Your task to perform on an android device: Go to internet settings Image 0: 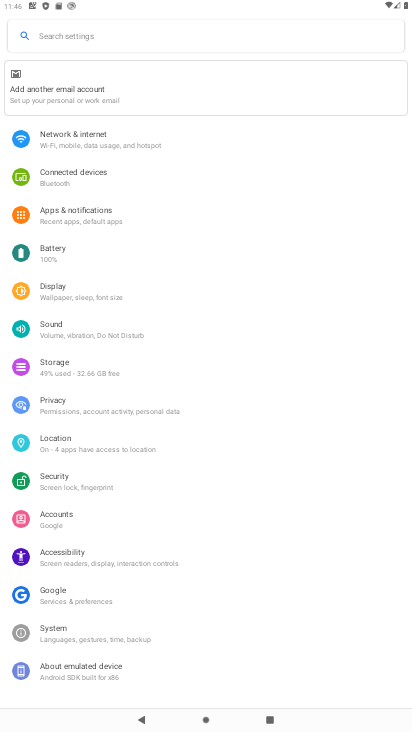
Step 0: press home button
Your task to perform on an android device: Go to internet settings Image 1: 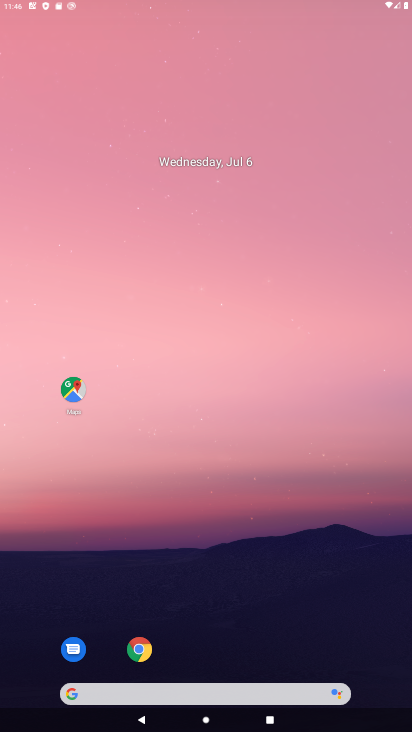
Step 1: drag from (373, 640) to (197, 5)
Your task to perform on an android device: Go to internet settings Image 2: 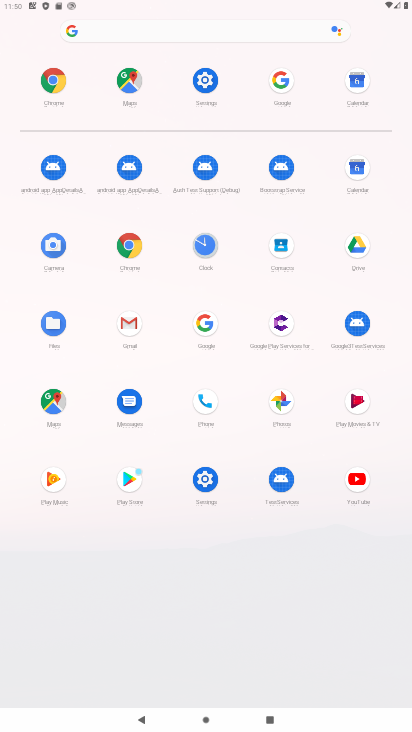
Step 2: click (211, 79)
Your task to perform on an android device: Go to internet settings Image 3: 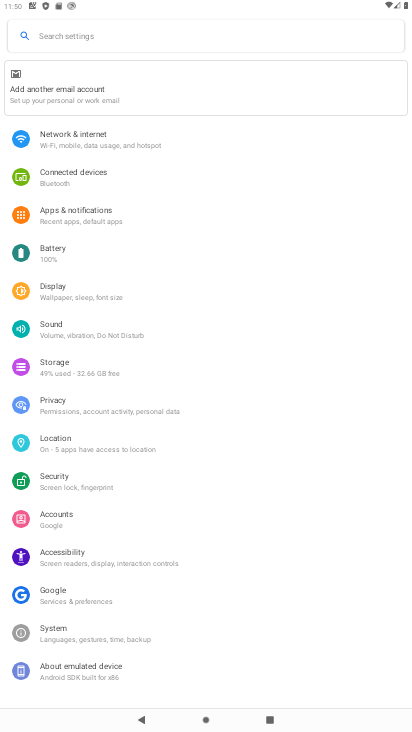
Step 3: click (115, 142)
Your task to perform on an android device: Go to internet settings Image 4: 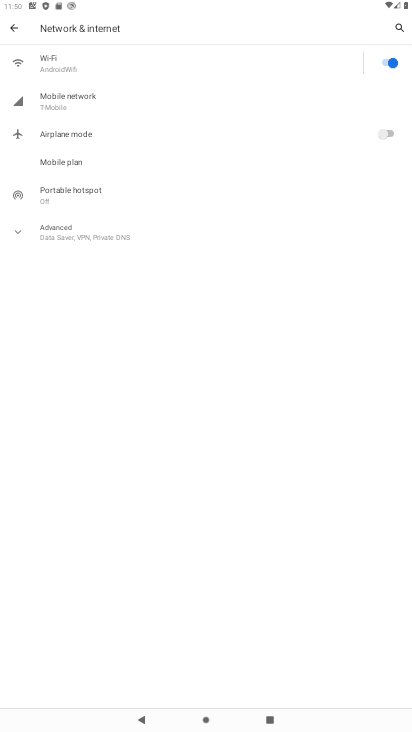
Step 4: task complete